Your task to perform on an android device: Open ESPN.com Image 0: 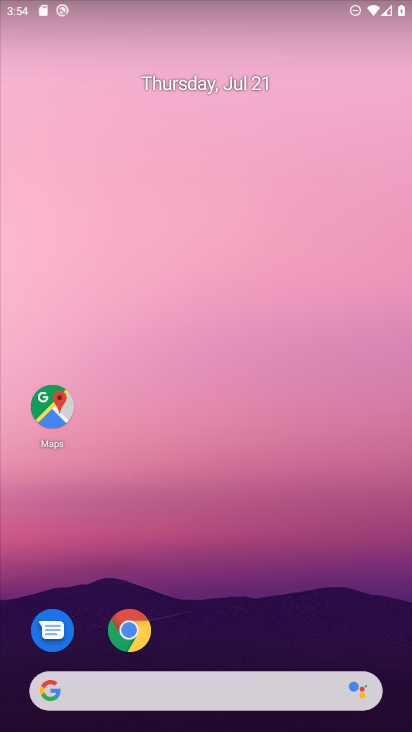
Step 0: click (124, 621)
Your task to perform on an android device: Open ESPN.com Image 1: 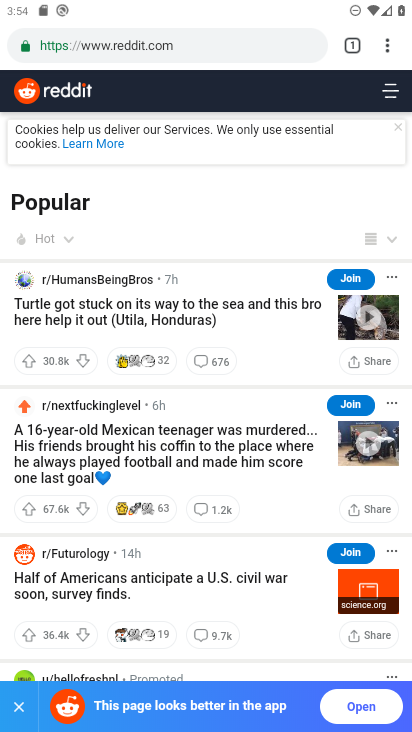
Step 1: click (346, 43)
Your task to perform on an android device: Open ESPN.com Image 2: 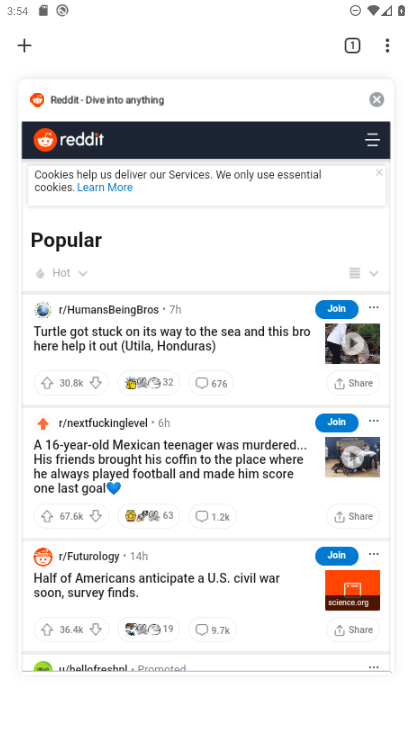
Step 2: click (23, 39)
Your task to perform on an android device: Open ESPN.com Image 3: 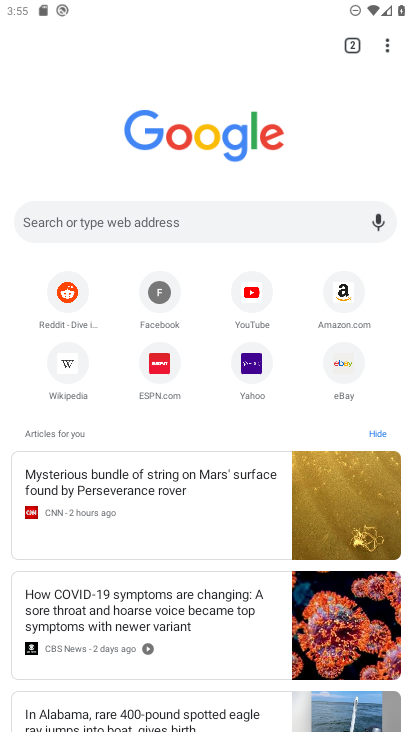
Step 3: click (165, 385)
Your task to perform on an android device: Open ESPN.com Image 4: 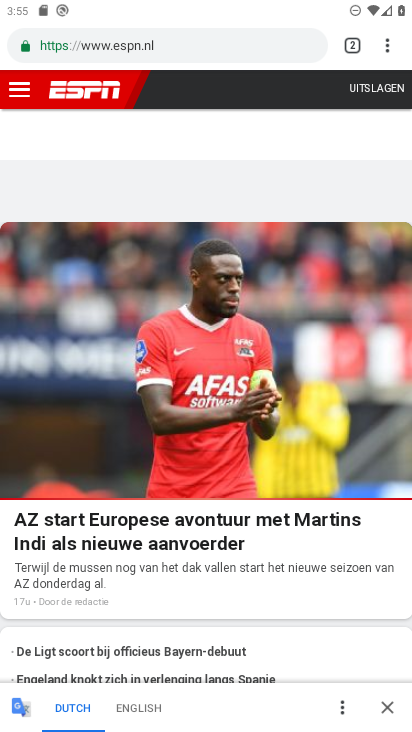
Step 4: task complete